Your task to perform on an android device: turn smart compose on in the gmail app Image 0: 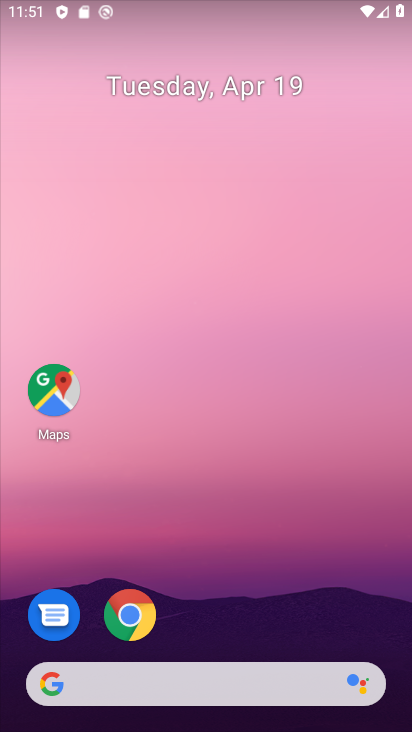
Step 0: drag from (395, 591) to (205, 706)
Your task to perform on an android device: turn smart compose on in the gmail app Image 1: 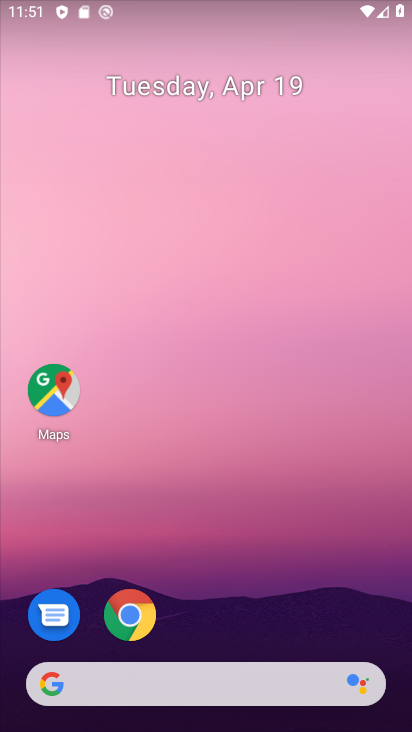
Step 1: drag from (313, 594) to (292, 14)
Your task to perform on an android device: turn smart compose on in the gmail app Image 2: 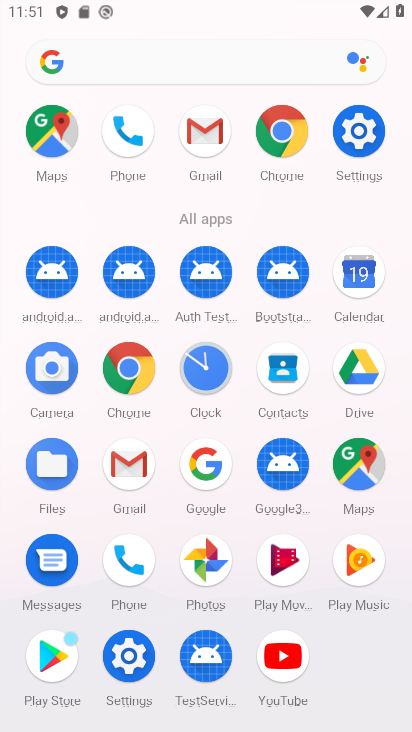
Step 2: click (208, 145)
Your task to perform on an android device: turn smart compose on in the gmail app Image 3: 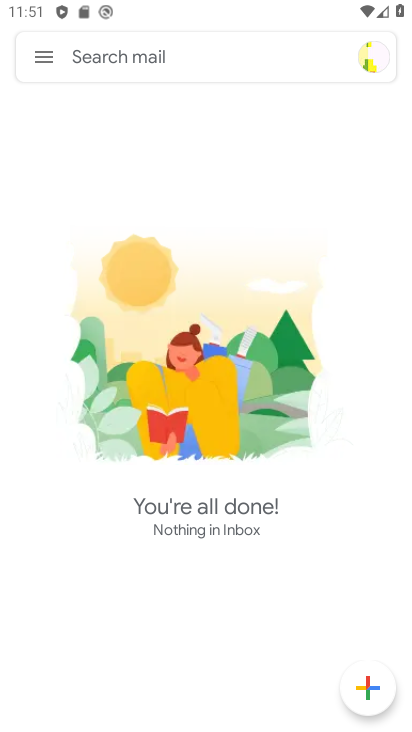
Step 3: click (37, 58)
Your task to perform on an android device: turn smart compose on in the gmail app Image 4: 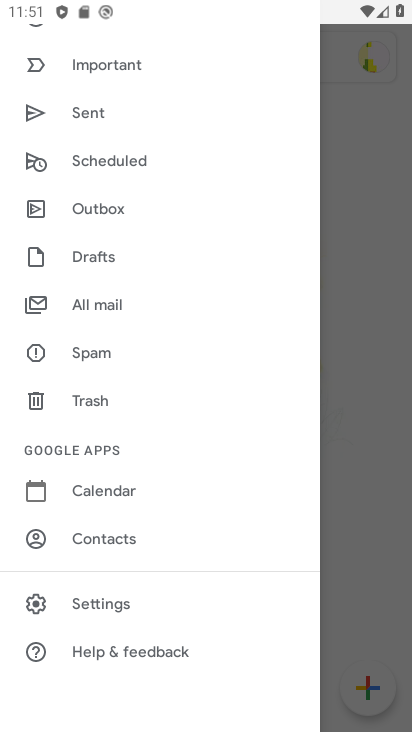
Step 4: click (124, 600)
Your task to perform on an android device: turn smart compose on in the gmail app Image 5: 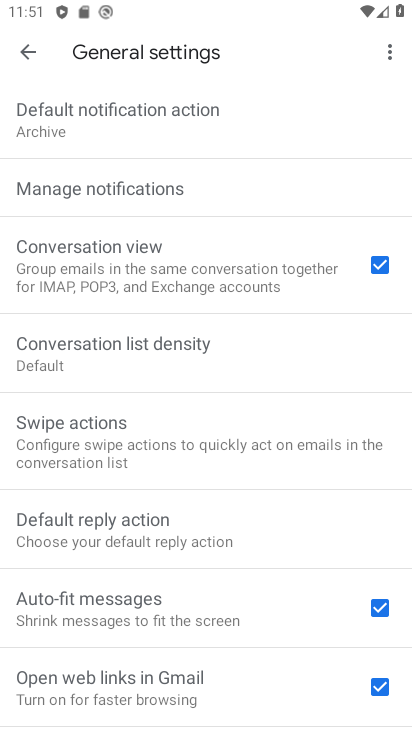
Step 5: click (35, 56)
Your task to perform on an android device: turn smart compose on in the gmail app Image 6: 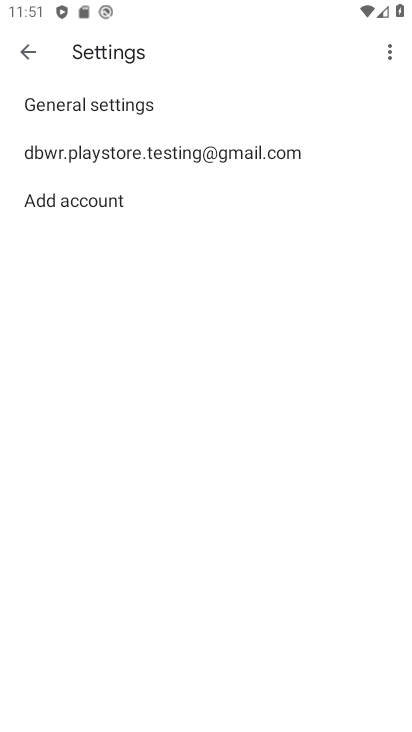
Step 6: click (103, 160)
Your task to perform on an android device: turn smart compose on in the gmail app Image 7: 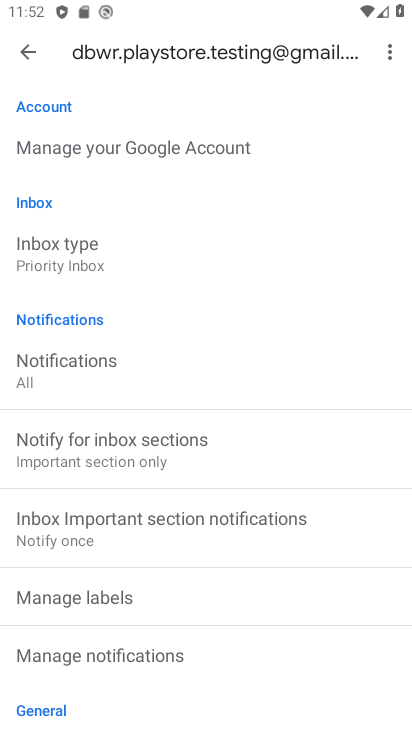
Step 7: task complete